Your task to perform on an android device: find snoozed emails in the gmail app Image 0: 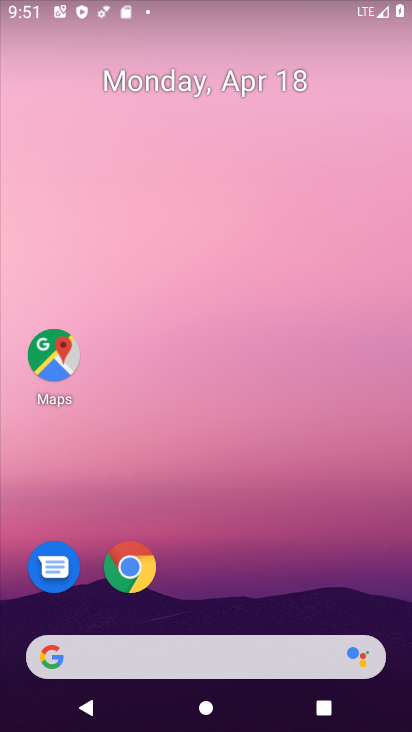
Step 0: drag from (338, 440) to (370, 185)
Your task to perform on an android device: find snoozed emails in the gmail app Image 1: 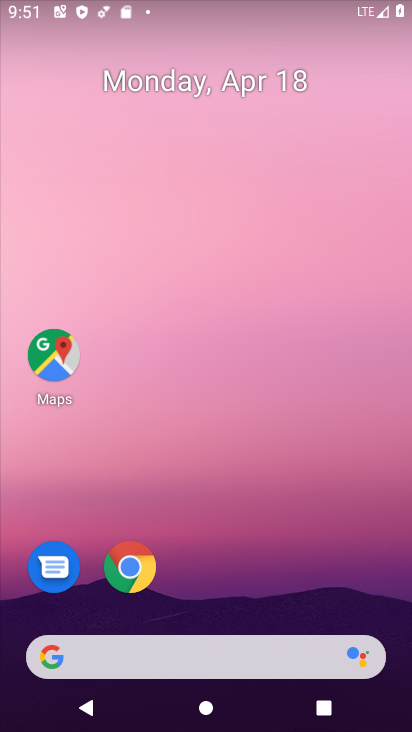
Step 1: drag from (321, 583) to (346, 162)
Your task to perform on an android device: find snoozed emails in the gmail app Image 2: 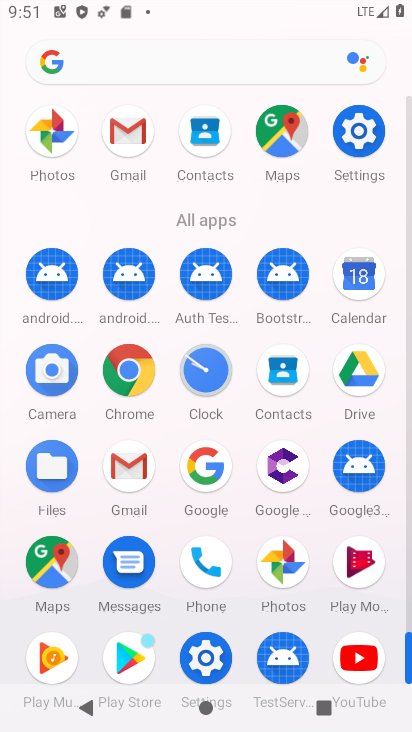
Step 2: click (132, 472)
Your task to perform on an android device: find snoozed emails in the gmail app Image 3: 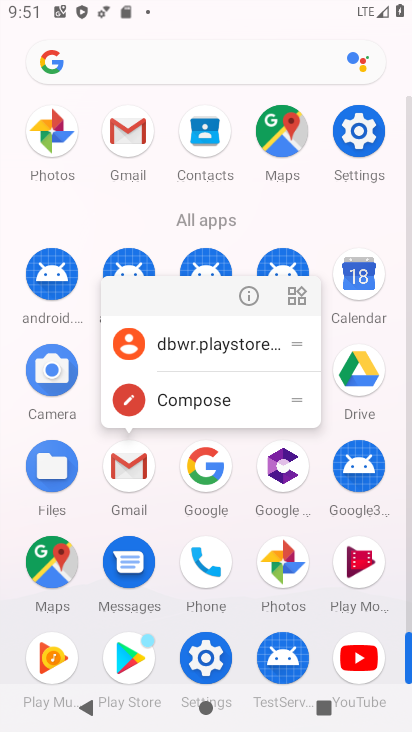
Step 3: click (133, 471)
Your task to perform on an android device: find snoozed emails in the gmail app Image 4: 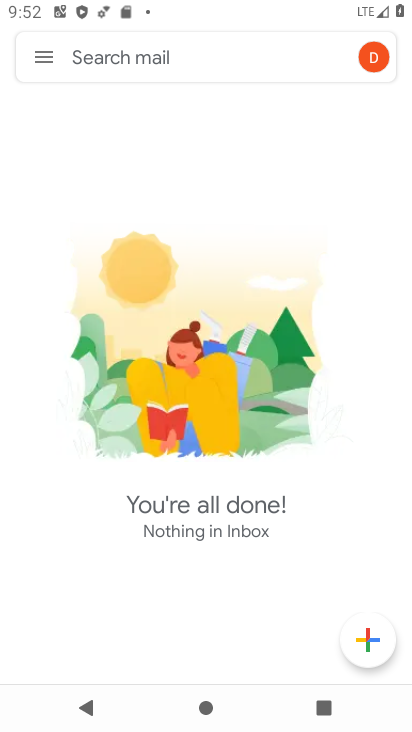
Step 4: click (44, 53)
Your task to perform on an android device: find snoozed emails in the gmail app Image 5: 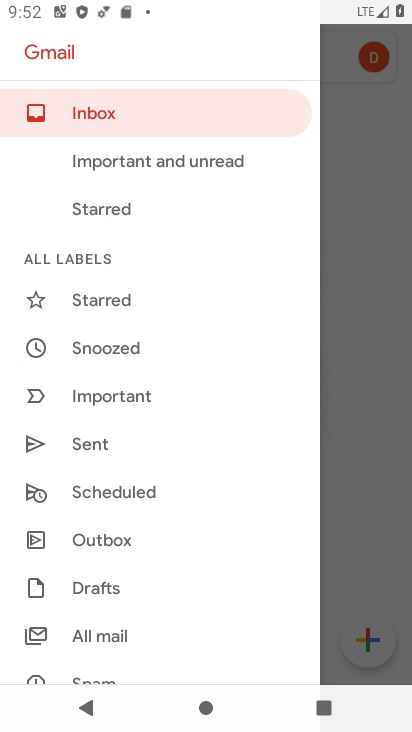
Step 5: click (134, 636)
Your task to perform on an android device: find snoozed emails in the gmail app Image 6: 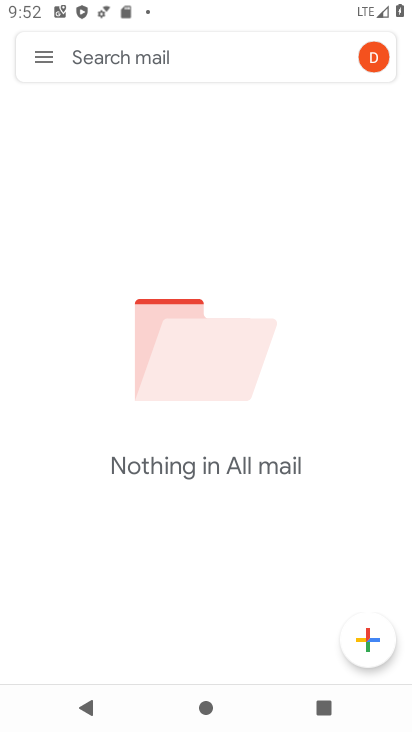
Step 6: task complete